Your task to perform on an android device: turn pop-ups on in chrome Image 0: 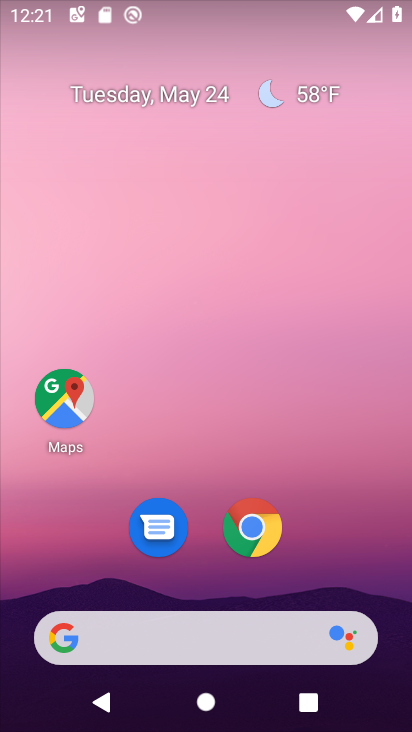
Step 0: drag from (367, 582) to (304, 119)
Your task to perform on an android device: turn pop-ups on in chrome Image 1: 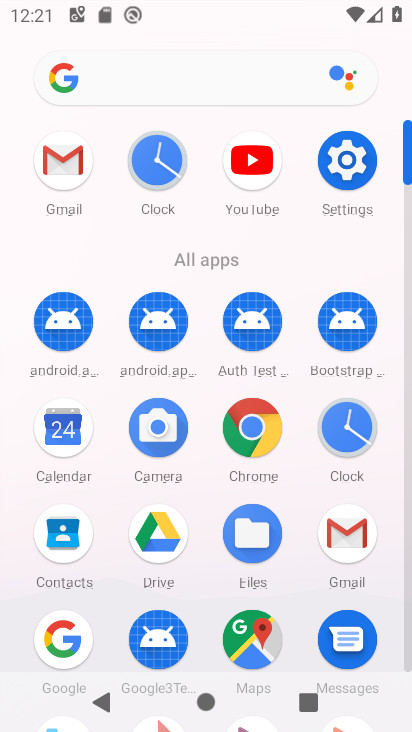
Step 1: click (267, 432)
Your task to perform on an android device: turn pop-ups on in chrome Image 2: 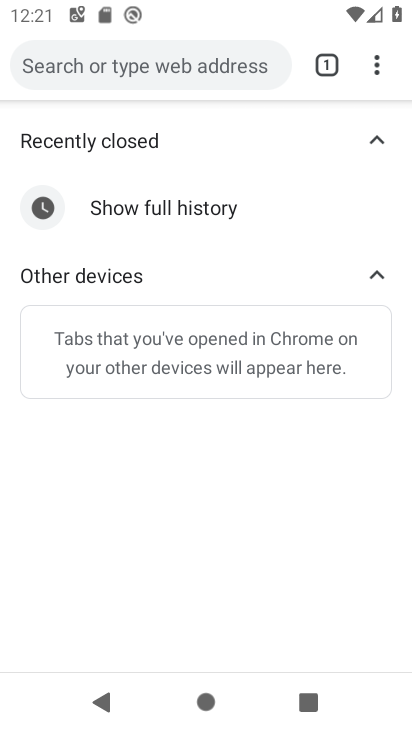
Step 2: click (384, 60)
Your task to perform on an android device: turn pop-ups on in chrome Image 3: 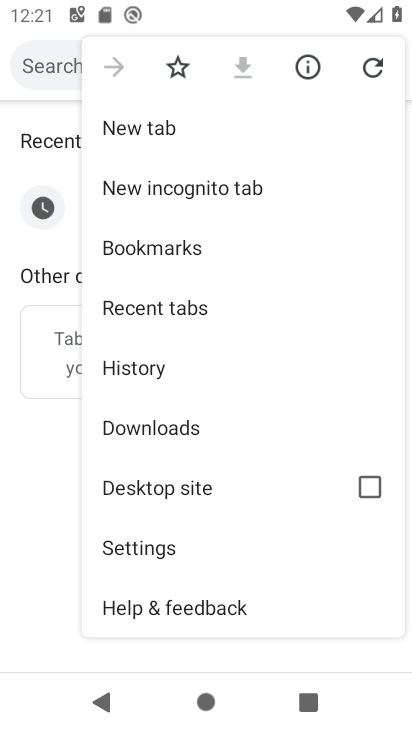
Step 3: click (246, 554)
Your task to perform on an android device: turn pop-ups on in chrome Image 4: 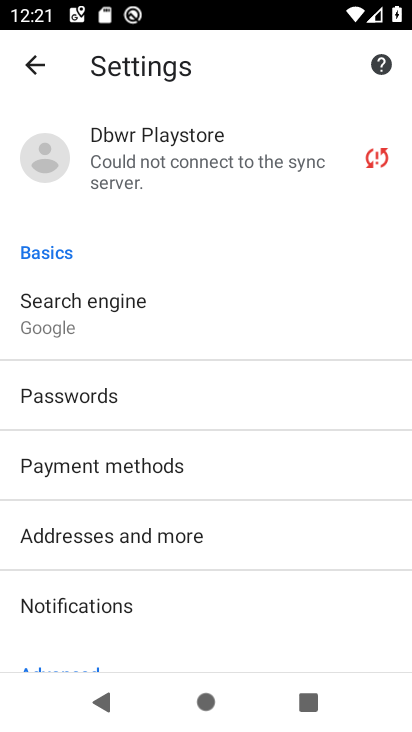
Step 4: drag from (250, 620) to (223, 190)
Your task to perform on an android device: turn pop-ups on in chrome Image 5: 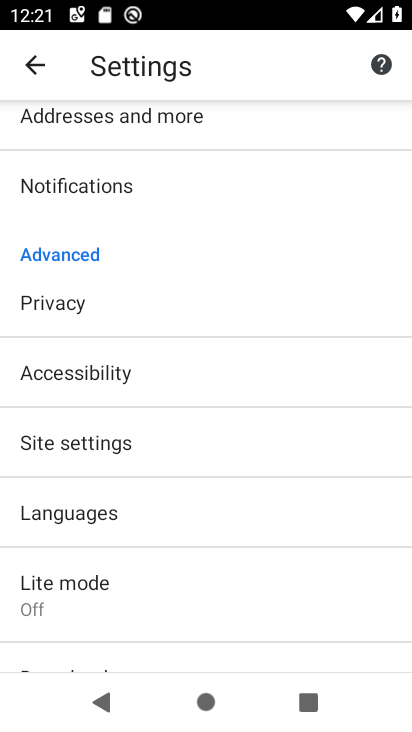
Step 5: click (218, 427)
Your task to perform on an android device: turn pop-ups on in chrome Image 6: 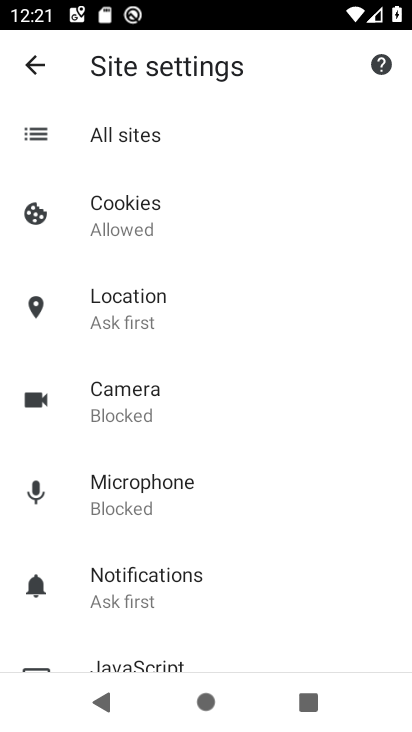
Step 6: drag from (229, 592) to (206, 219)
Your task to perform on an android device: turn pop-ups on in chrome Image 7: 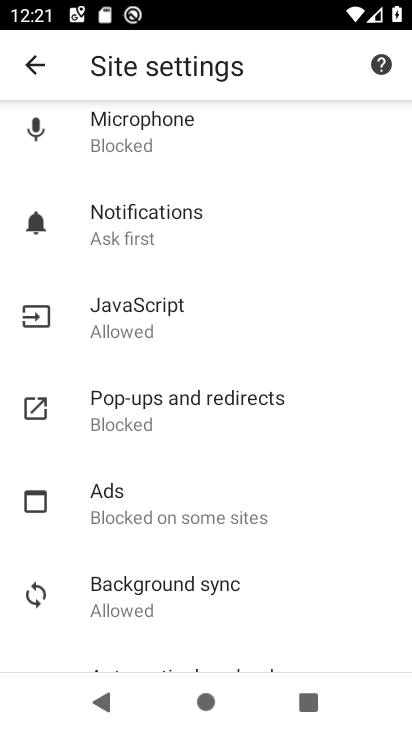
Step 7: click (214, 397)
Your task to perform on an android device: turn pop-ups on in chrome Image 8: 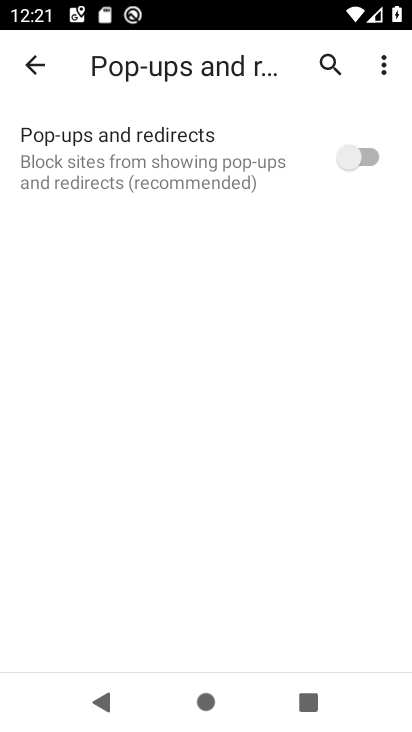
Step 8: click (374, 164)
Your task to perform on an android device: turn pop-ups on in chrome Image 9: 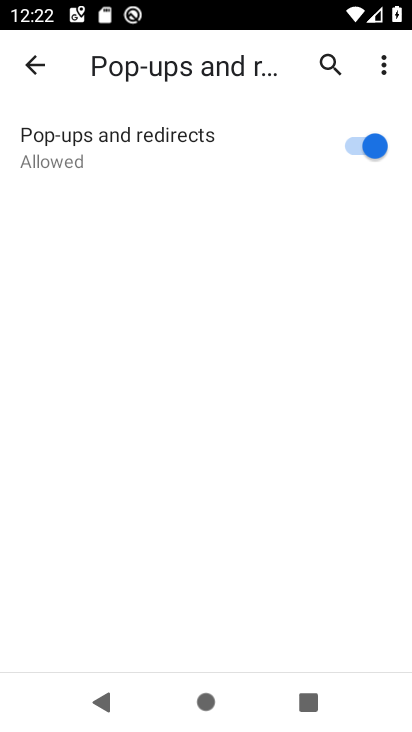
Step 9: task complete